Your task to perform on an android device: Go to Maps Image 0: 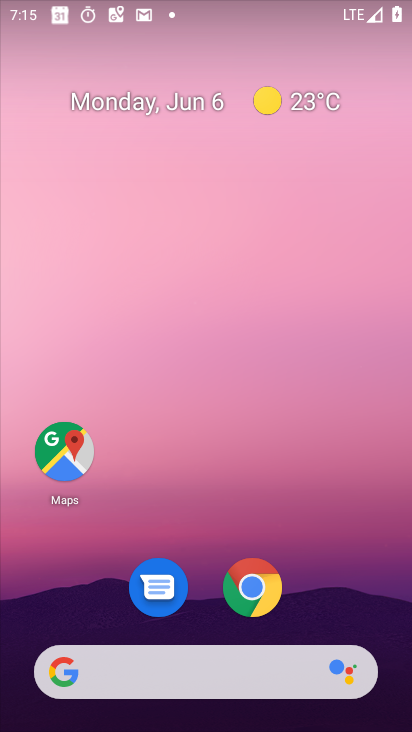
Step 0: drag from (396, 671) to (234, 16)
Your task to perform on an android device: Go to Maps Image 1: 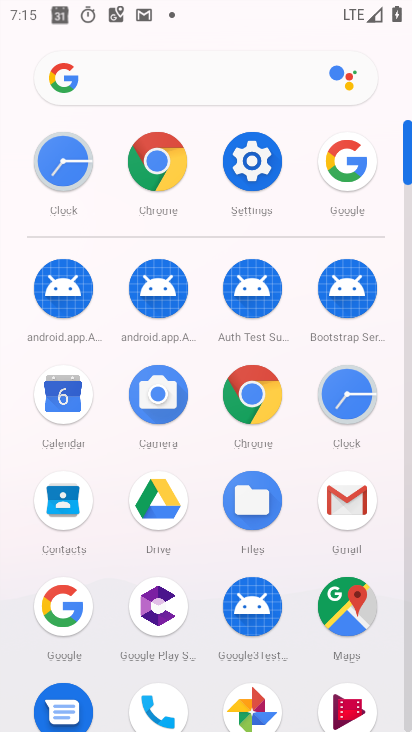
Step 1: click (366, 604)
Your task to perform on an android device: Go to Maps Image 2: 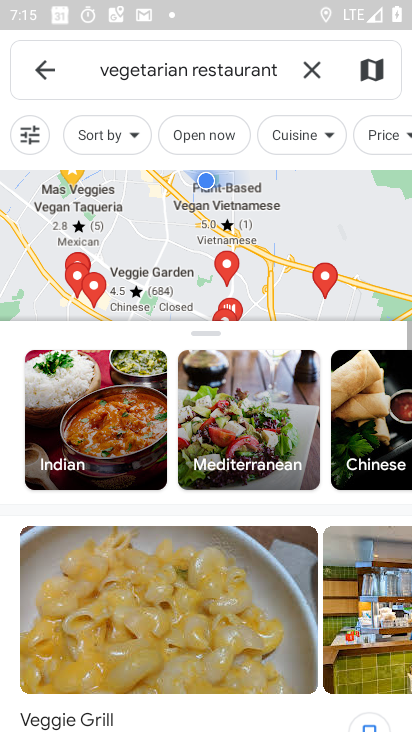
Step 2: click (300, 62)
Your task to perform on an android device: Go to Maps Image 3: 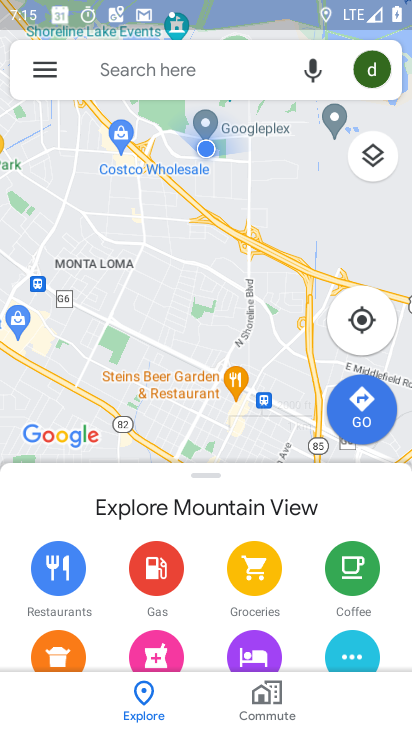
Step 3: task complete